Your task to perform on an android device: turn smart compose on in the gmail app Image 0: 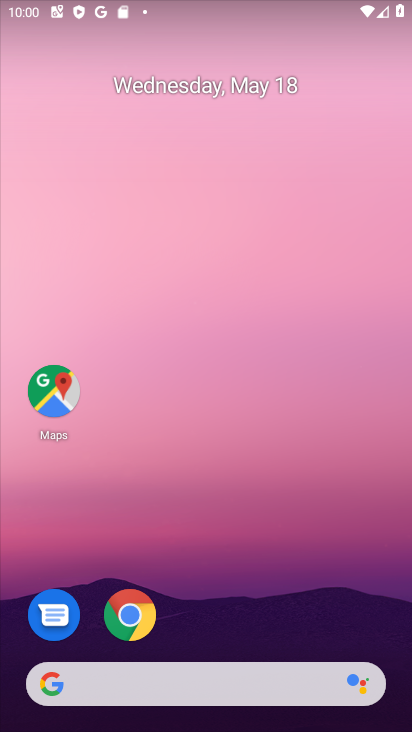
Step 0: drag from (283, 592) to (255, 46)
Your task to perform on an android device: turn smart compose on in the gmail app Image 1: 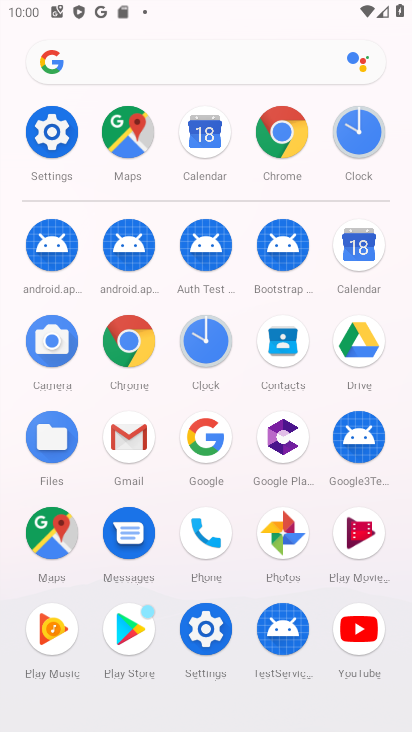
Step 1: click (120, 439)
Your task to perform on an android device: turn smart compose on in the gmail app Image 2: 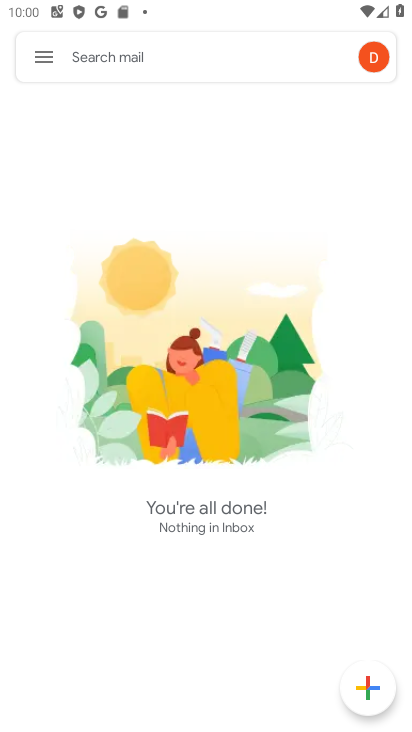
Step 2: click (37, 64)
Your task to perform on an android device: turn smart compose on in the gmail app Image 3: 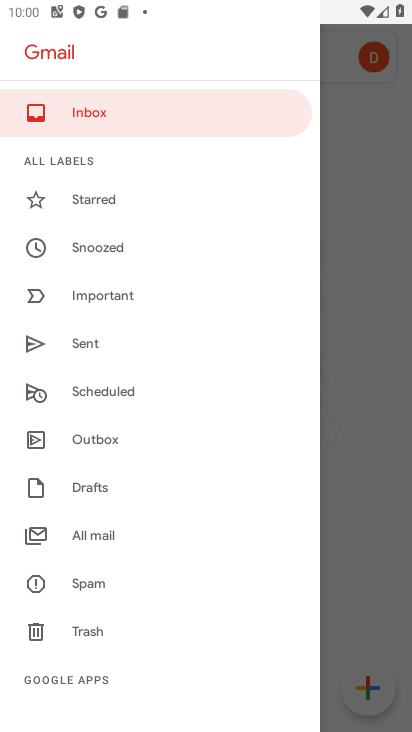
Step 3: drag from (191, 658) to (180, 238)
Your task to perform on an android device: turn smart compose on in the gmail app Image 4: 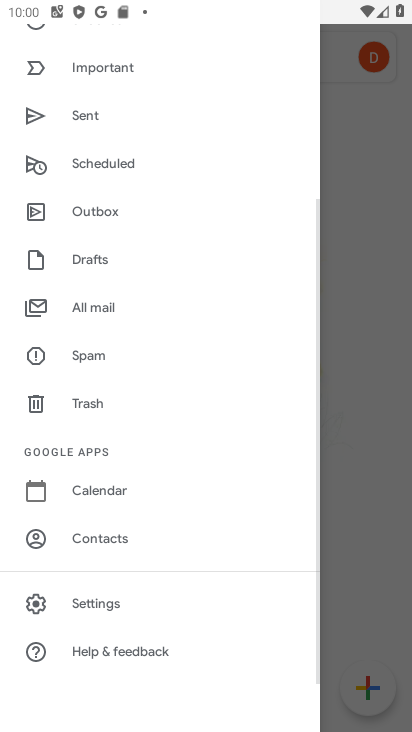
Step 4: click (106, 593)
Your task to perform on an android device: turn smart compose on in the gmail app Image 5: 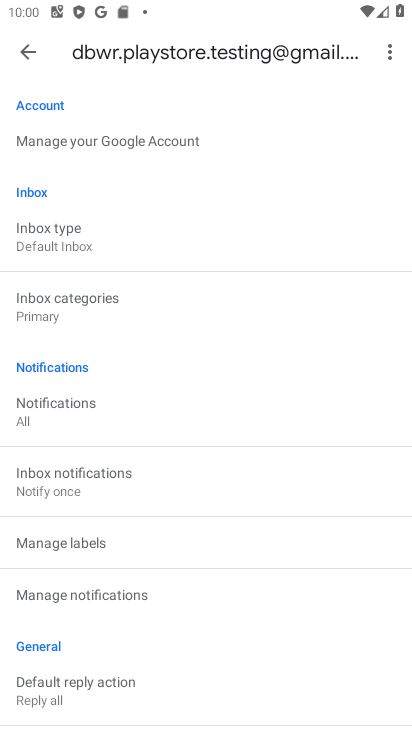
Step 5: task complete